Your task to perform on an android device: turn on showing notifications on the lock screen Image 0: 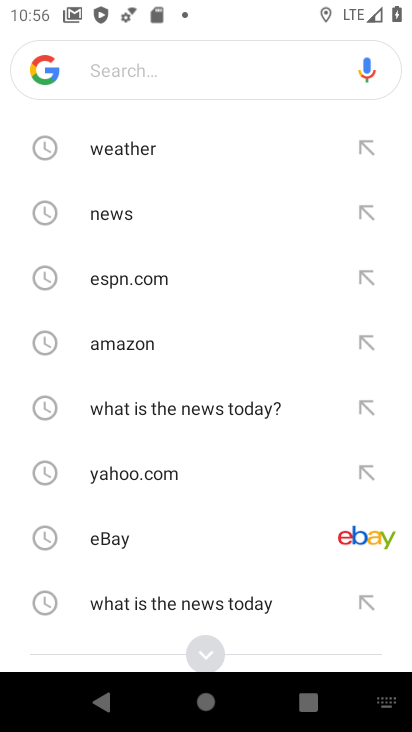
Step 0: press home button
Your task to perform on an android device: turn on showing notifications on the lock screen Image 1: 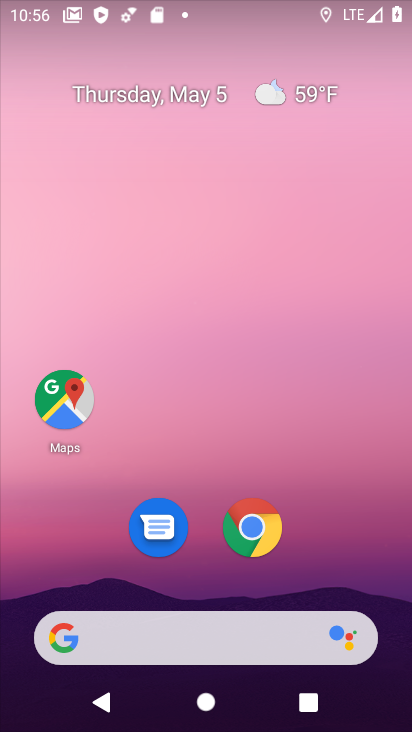
Step 1: drag from (228, 587) to (275, 26)
Your task to perform on an android device: turn on showing notifications on the lock screen Image 2: 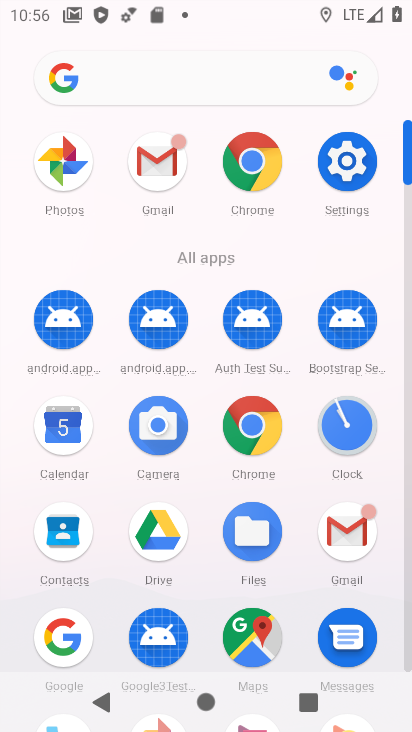
Step 2: click (356, 175)
Your task to perform on an android device: turn on showing notifications on the lock screen Image 3: 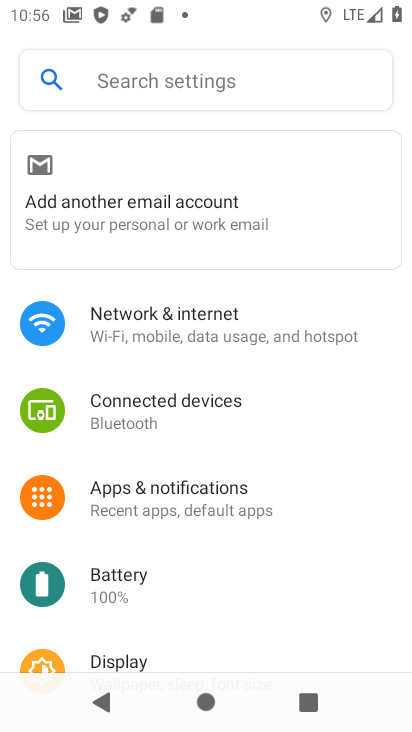
Step 3: drag from (162, 585) to (179, 285)
Your task to perform on an android device: turn on showing notifications on the lock screen Image 4: 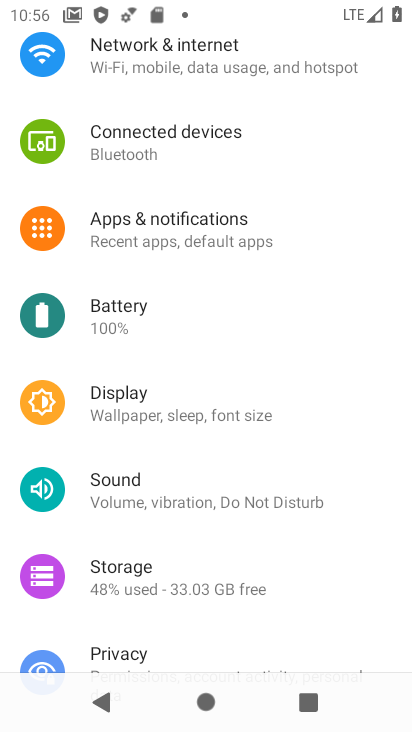
Step 4: click (181, 239)
Your task to perform on an android device: turn on showing notifications on the lock screen Image 5: 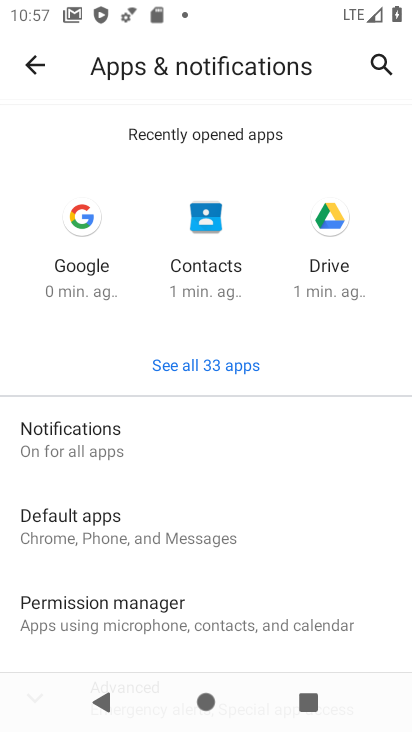
Step 5: click (111, 456)
Your task to perform on an android device: turn on showing notifications on the lock screen Image 6: 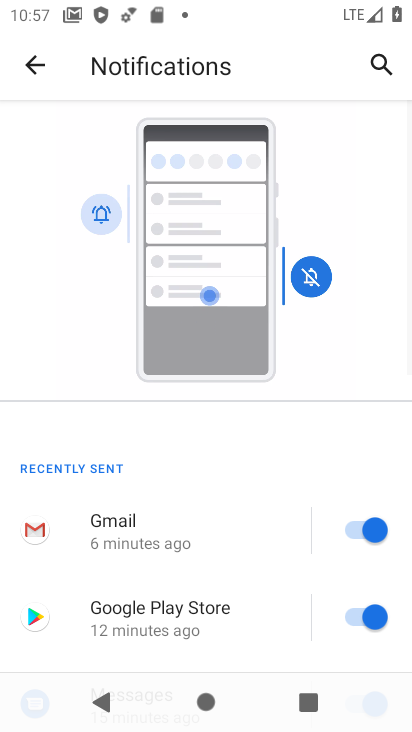
Step 6: drag from (193, 555) to (245, 133)
Your task to perform on an android device: turn on showing notifications on the lock screen Image 7: 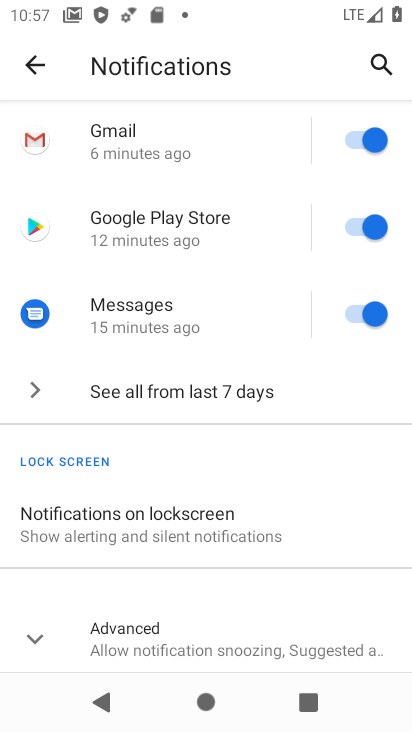
Step 7: click (176, 530)
Your task to perform on an android device: turn on showing notifications on the lock screen Image 8: 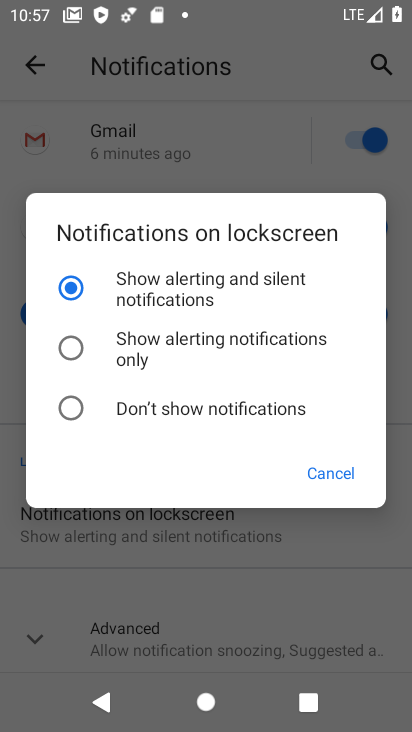
Step 8: task complete